Your task to perform on an android device: move an email to a new category in the gmail app Image 0: 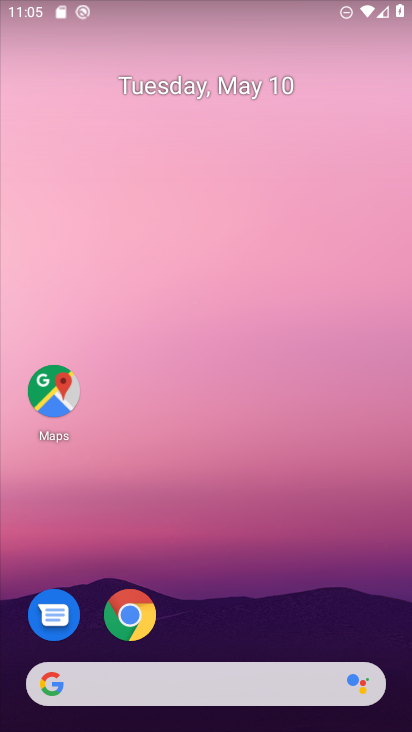
Step 0: drag from (178, 627) to (221, 51)
Your task to perform on an android device: move an email to a new category in the gmail app Image 1: 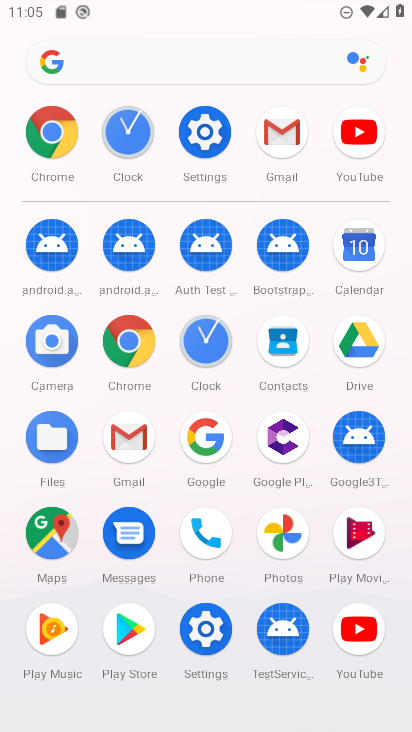
Step 1: click (130, 454)
Your task to perform on an android device: move an email to a new category in the gmail app Image 2: 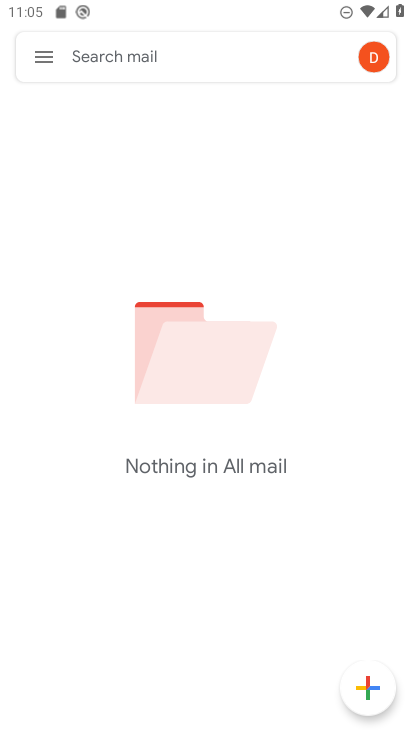
Step 2: drag from (224, 547) to (252, 394)
Your task to perform on an android device: move an email to a new category in the gmail app Image 3: 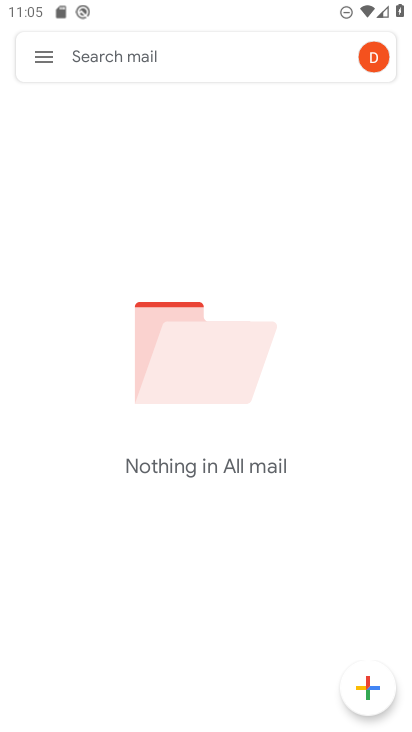
Step 3: click (245, 254)
Your task to perform on an android device: move an email to a new category in the gmail app Image 4: 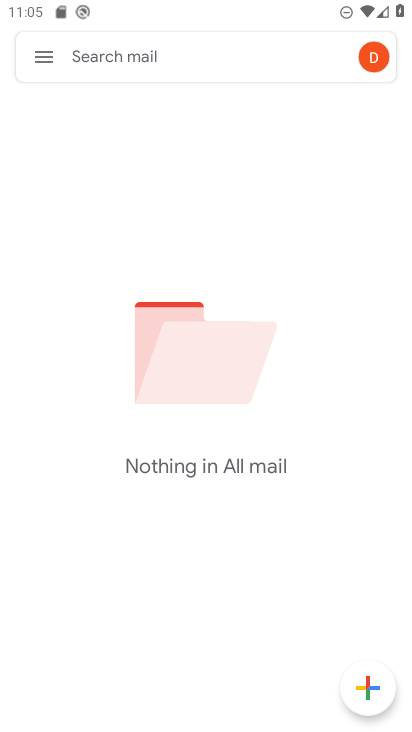
Step 4: click (307, 399)
Your task to perform on an android device: move an email to a new category in the gmail app Image 5: 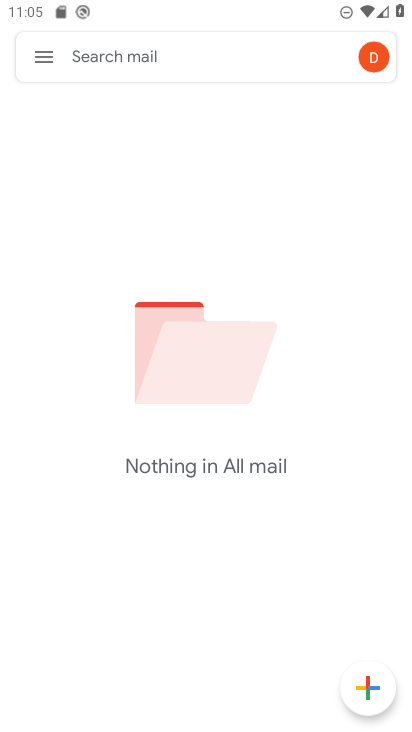
Step 5: click (45, 57)
Your task to perform on an android device: move an email to a new category in the gmail app Image 6: 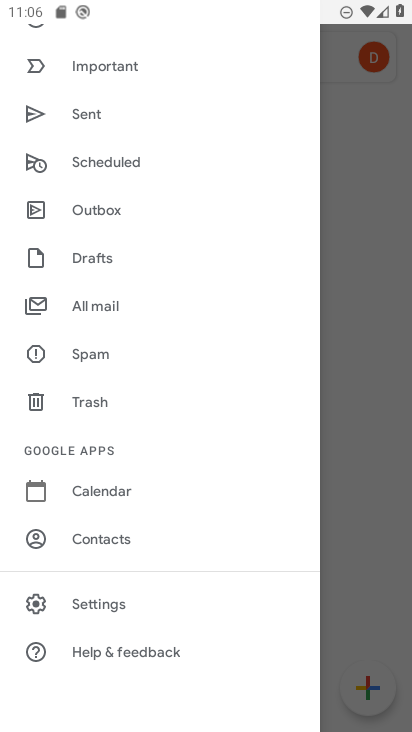
Step 6: drag from (119, 222) to (265, 688)
Your task to perform on an android device: move an email to a new category in the gmail app Image 7: 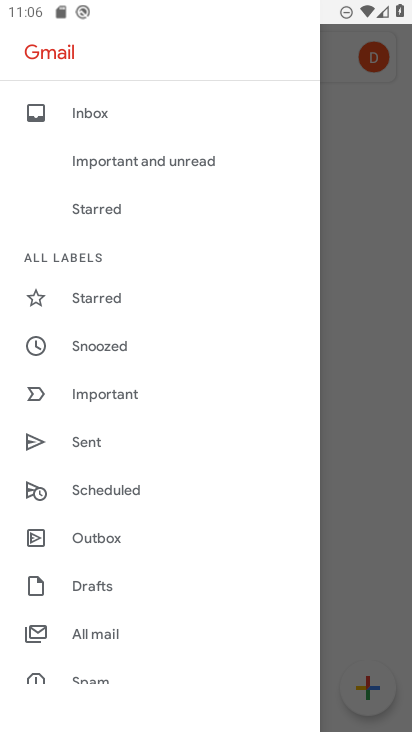
Step 7: click (108, 109)
Your task to perform on an android device: move an email to a new category in the gmail app Image 8: 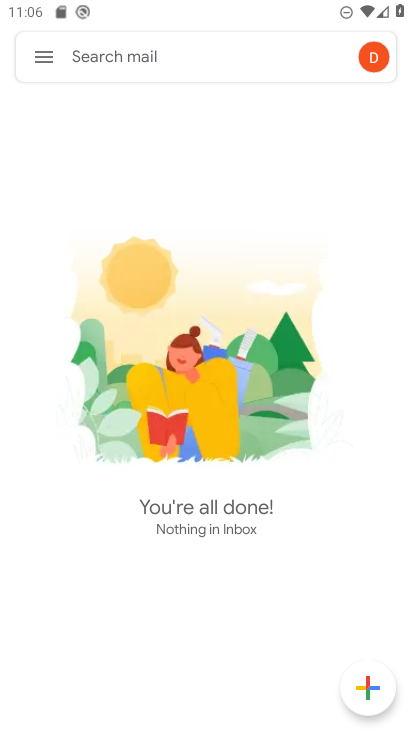
Step 8: drag from (215, 615) to (246, 266)
Your task to perform on an android device: move an email to a new category in the gmail app Image 9: 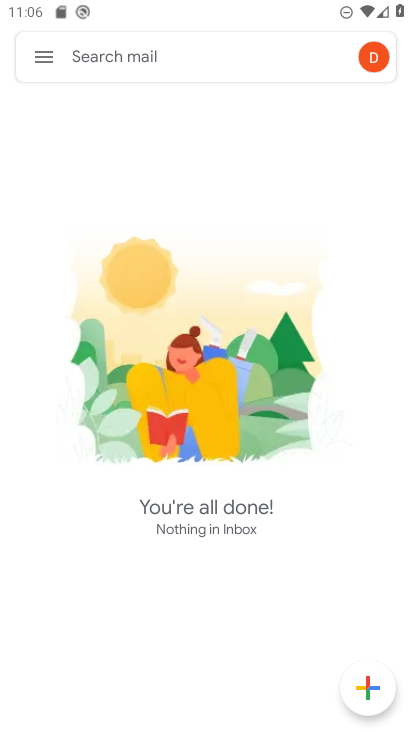
Step 9: drag from (250, 679) to (304, 232)
Your task to perform on an android device: move an email to a new category in the gmail app Image 10: 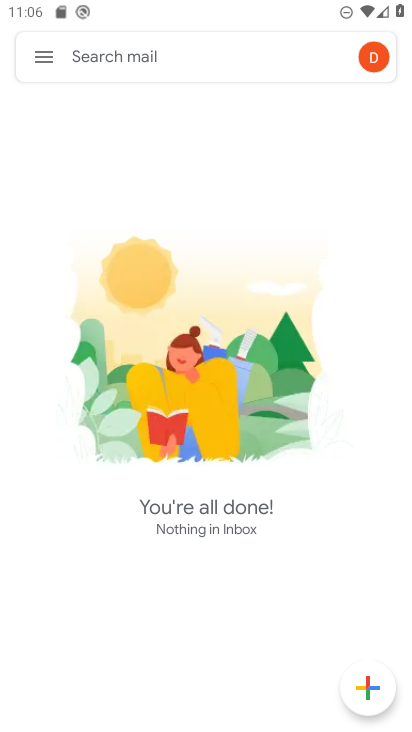
Step 10: drag from (232, 519) to (285, 243)
Your task to perform on an android device: move an email to a new category in the gmail app Image 11: 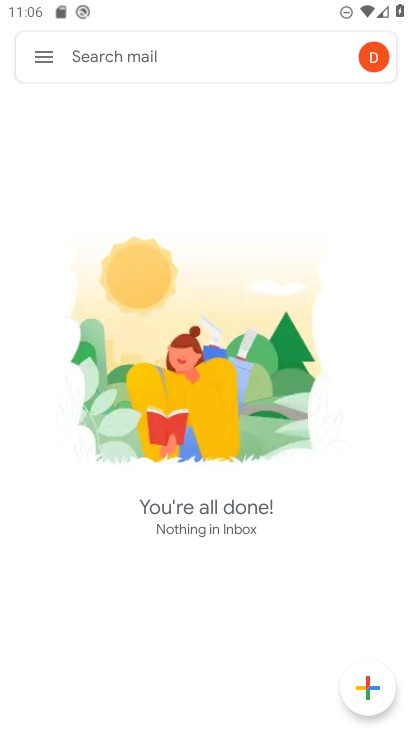
Step 11: click (14, 18)
Your task to perform on an android device: move an email to a new category in the gmail app Image 12: 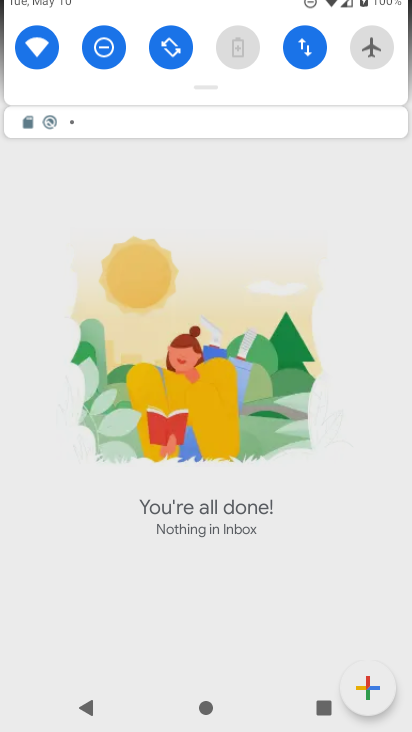
Step 12: click (32, 54)
Your task to perform on an android device: move an email to a new category in the gmail app Image 13: 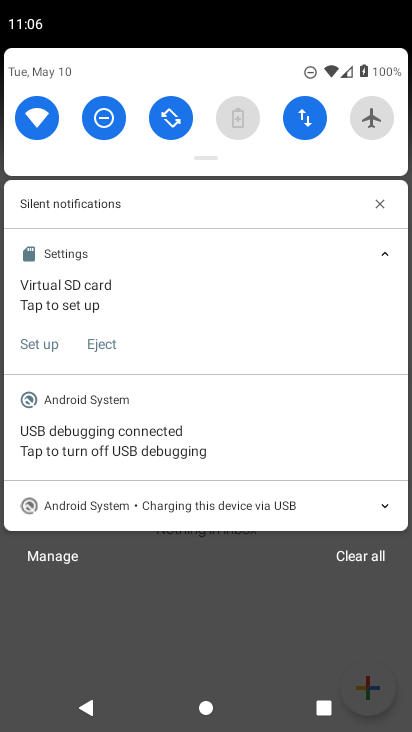
Step 13: click (227, 658)
Your task to perform on an android device: move an email to a new category in the gmail app Image 14: 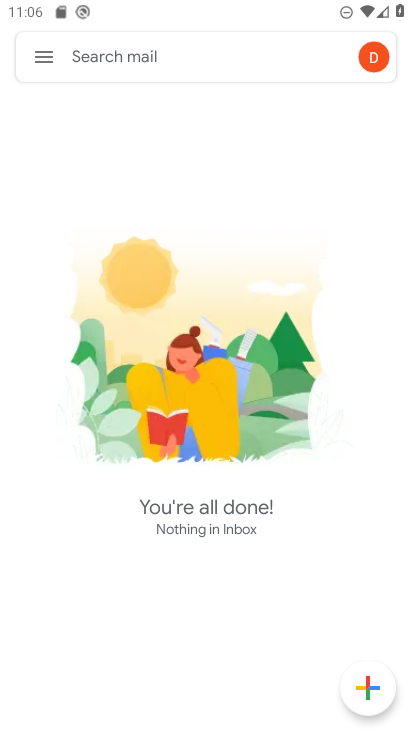
Step 14: click (39, 46)
Your task to perform on an android device: move an email to a new category in the gmail app Image 15: 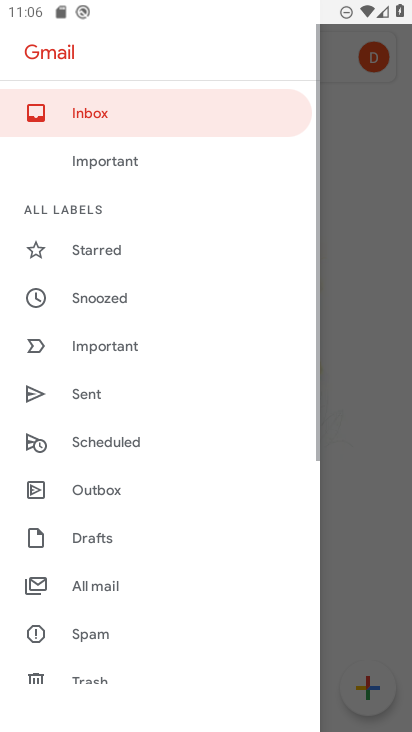
Step 15: task complete